Your task to perform on an android device: Open Google Chrome and open the bookmarks view Image 0: 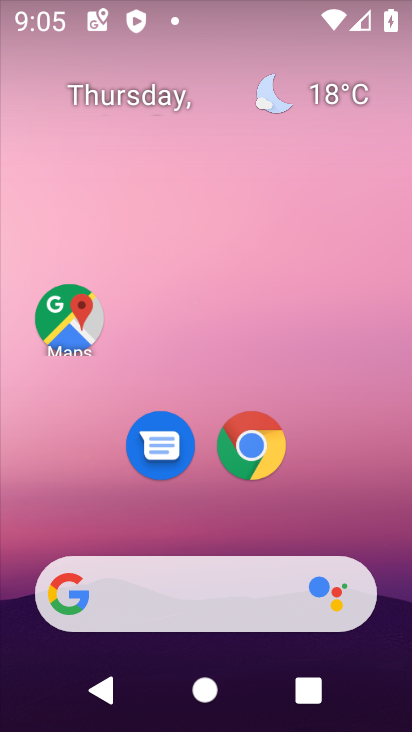
Step 0: drag from (398, 554) to (283, 88)
Your task to perform on an android device: Open Google Chrome and open the bookmarks view Image 1: 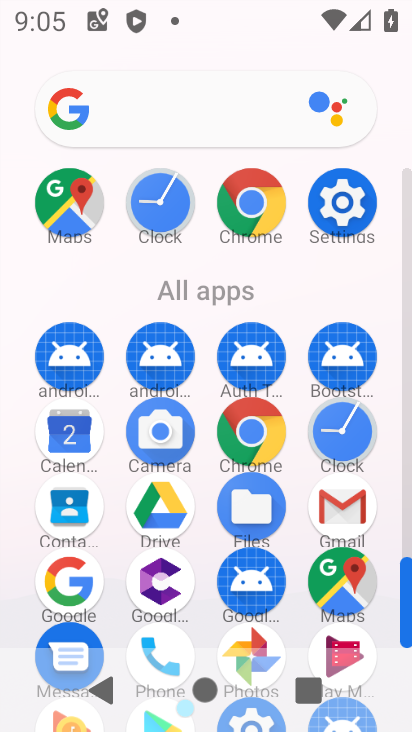
Step 1: click (260, 213)
Your task to perform on an android device: Open Google Chrome and open the bookmarks view Image 2: 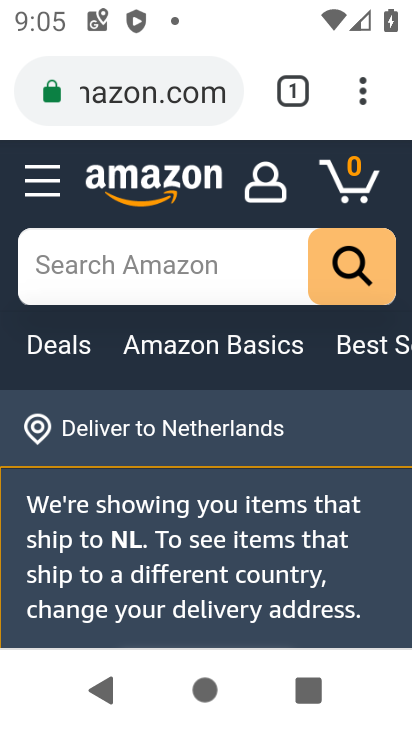
Step 2: click (361, 91)
Your task to perform on an android device: Open Google Chrome and open the bookmarks view Image 3: 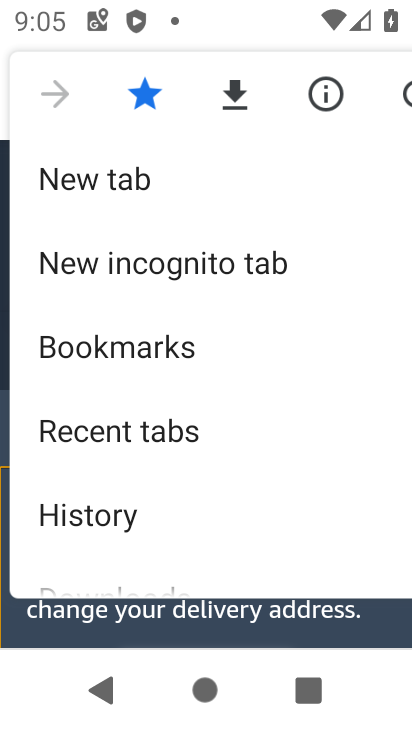
Step 3: drag from (222, 547) to (153, 64)
Your task to perform on an android device: Open Google Chrome and open the bookmarks view Image 4: 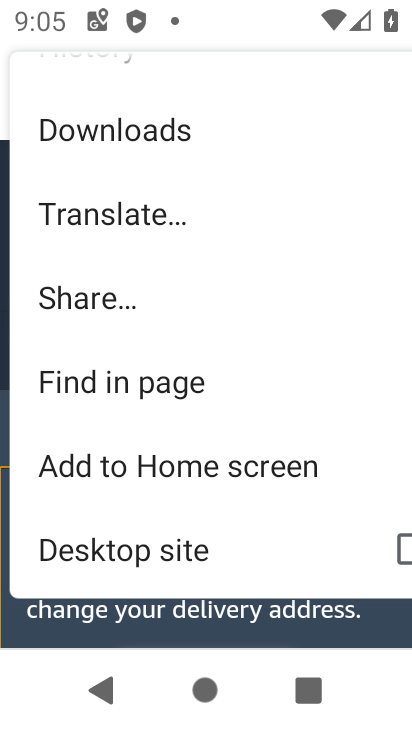
Step 4: drag from (153, 64) to (172, 516)
Your task to perform on an android device: Open Google Chrome and open the bookmarks view Image 5: 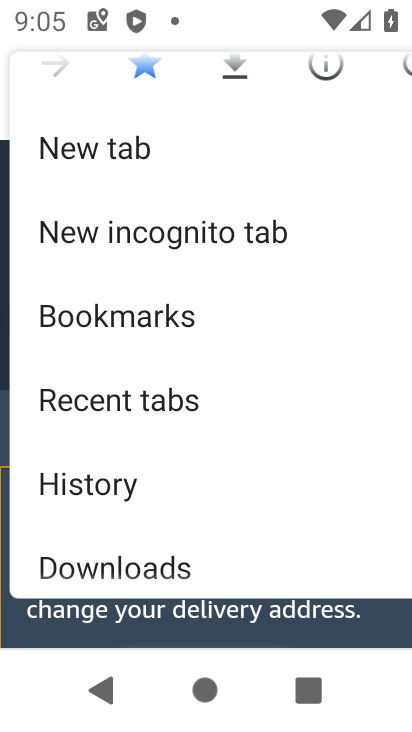
Step 5: click (160, 331)
Your task to perform on an android device: Open Google Chrome and open the bookmarks view Image 6: 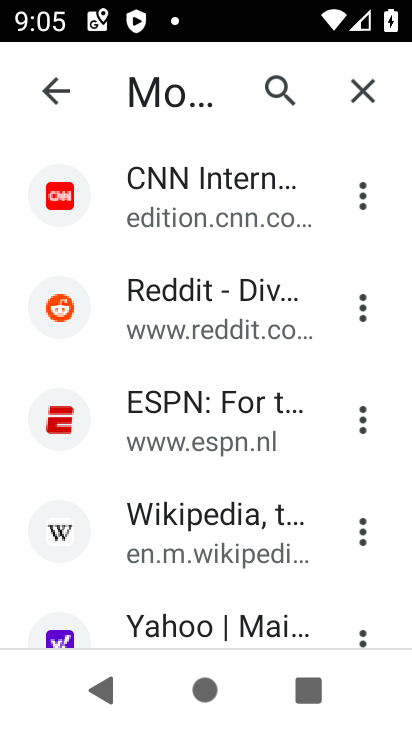
Step 6: task complete